Your task to perform on an android device: Open accessibility settings Image 0: 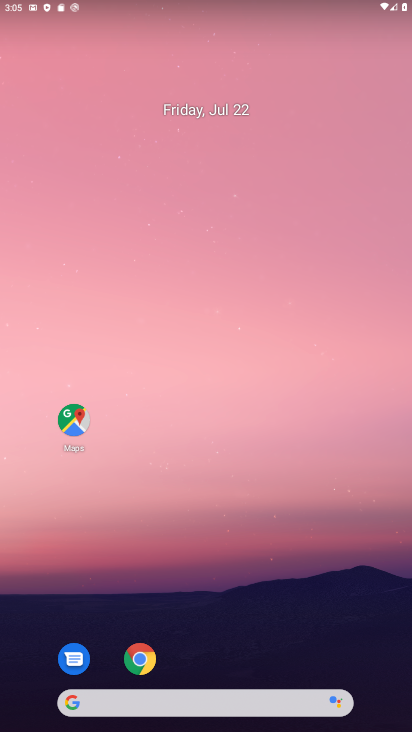
Step 0: drag from (225, 668) to (193, 91)
Your task to perform on an android device: Open accessibility settings Image 1: 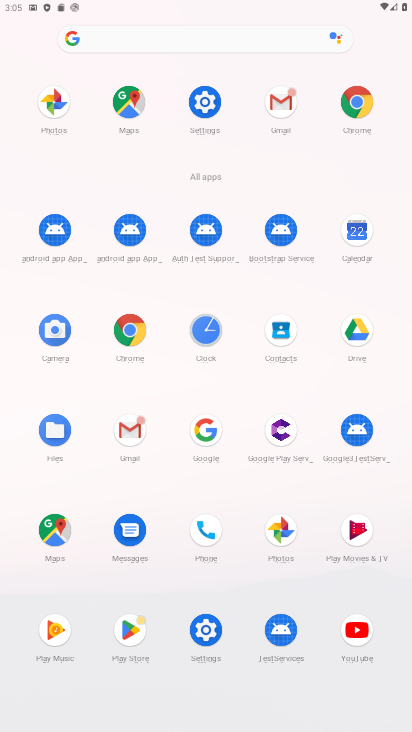
Step 1: click (213, 96)
Your task to perform on an android device: Open accessibility settings Image 2: 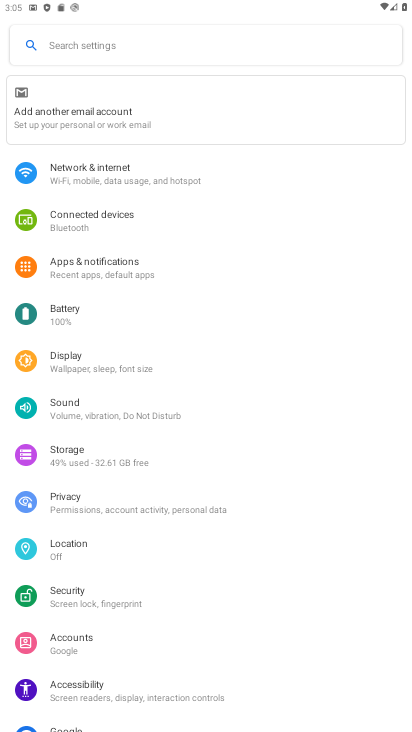
Step 2: click (98, 692)
Your task to perform on an android device: Open accessibility settings Image 3: 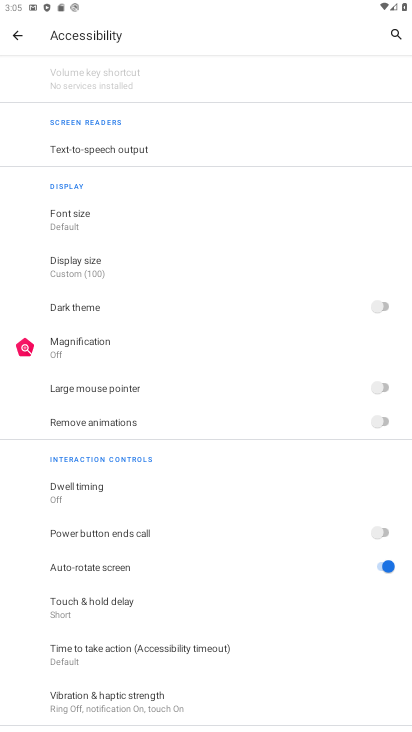
Step 3: task complete